Your task to perform on an android device: open device folders in google photos Image 0: 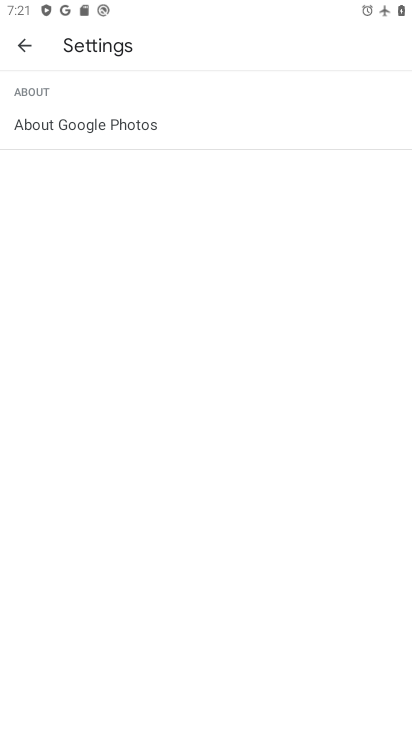
Step 0: press home button
Your task to perform on an android device: open device folders in google photos Image 1: 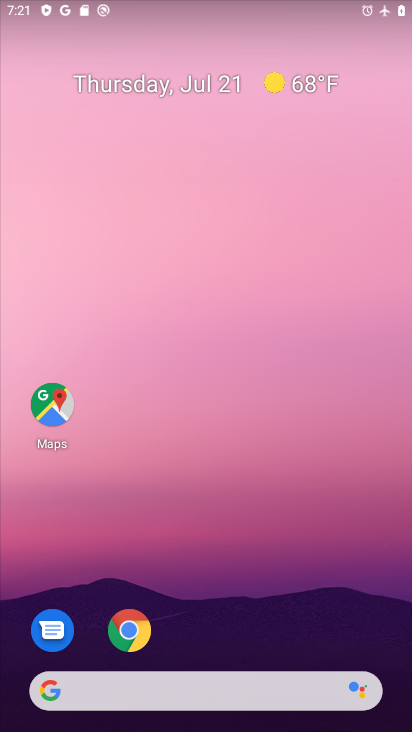
Step 1: drag from (334, 578) to (401, 355)
Your task to perform on an android device: open device folders in google photos Image 2: 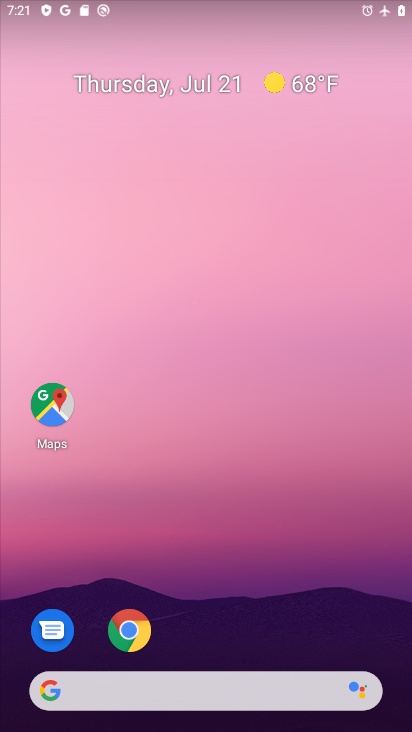
Step 2: drag from (294, 656) to (284, 0)
Your task to perform on an android device: open device folders in google photos Image 3: 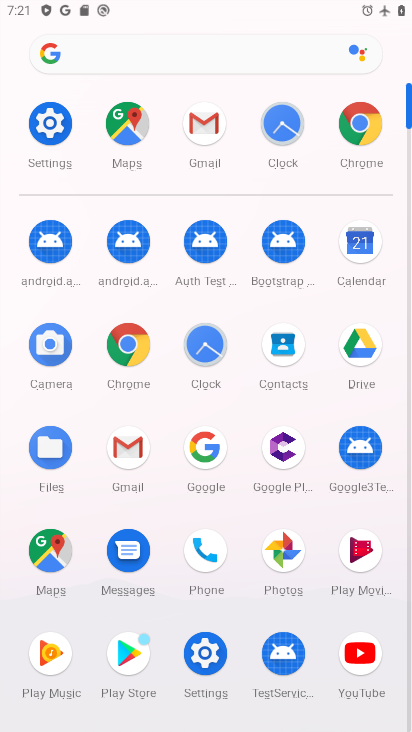
Step 3: click (290, 554)
Your task to perform on an android device: open device folders in google photos Image 4: 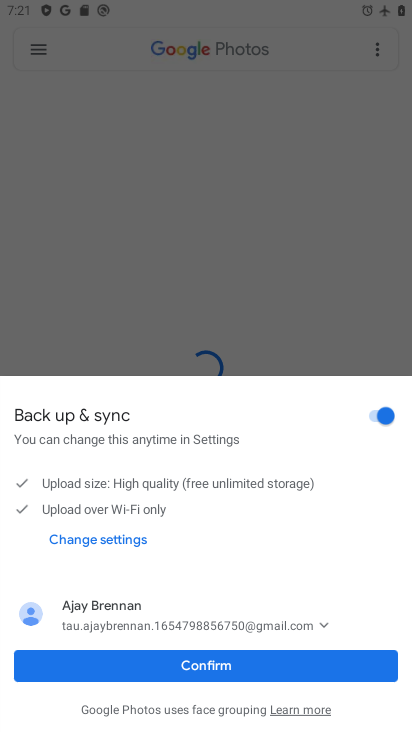
Step 4: click (184, 662)
Your task to perform on an android device: open device folders in google photos Image 5: 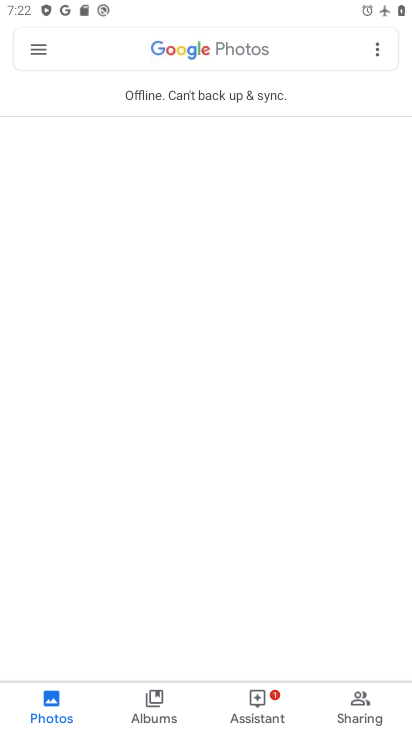
Step 5: click (29, 38)
Your task to perform on an android device: open device folders in google photos Image 6: 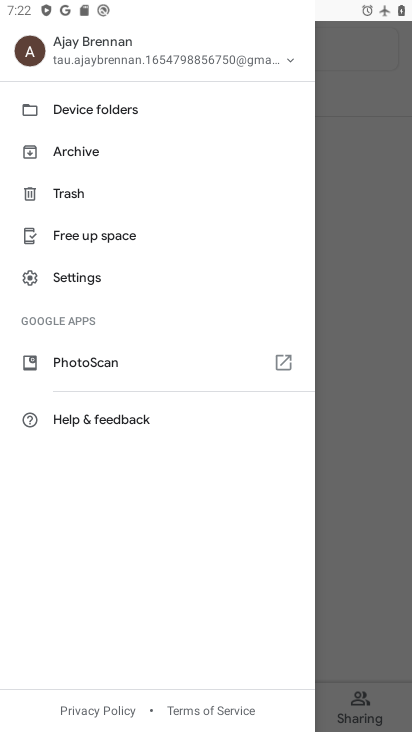
Step 6: click (58, 114)
Your task to perform on an android device: open device folders in google photos Image 7: 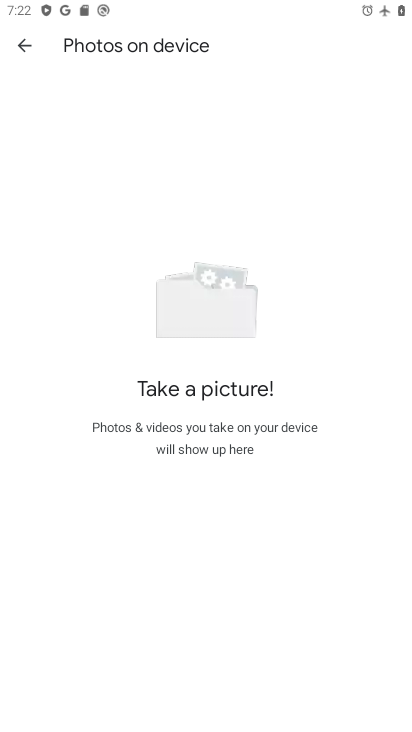
Step 7: task complete